Your task to perform on an android device: Open Wikipedia Image 0: 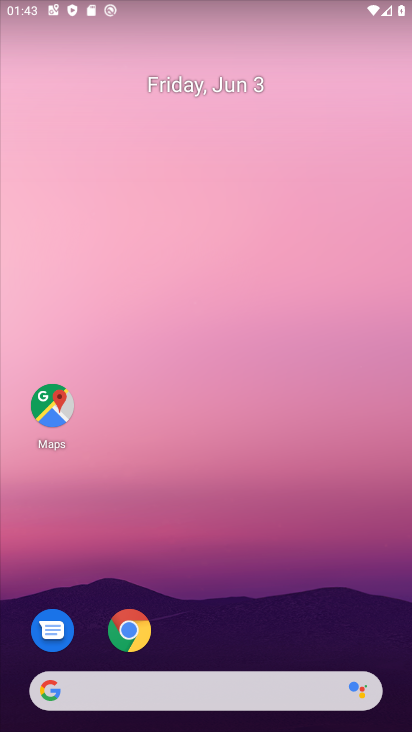
Step 0: click (144, 627)
Your task to perform on an android device: Open Wikipedia Image 1: 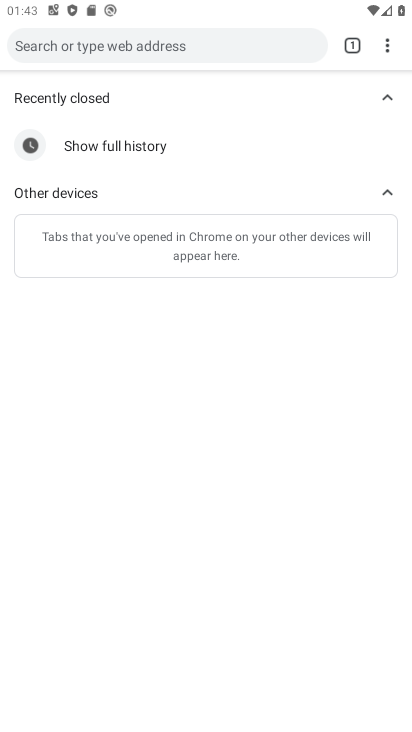
Step 1: click (352, 38)
Your task to perform on an android device: Open Wikipedia Image 2: 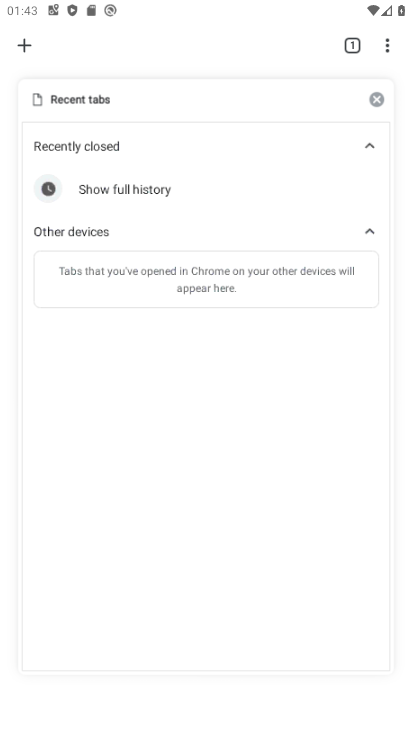
Step 2: click (26, 52)
Your task to perform on an android device: Open Wikipedia Image 3: 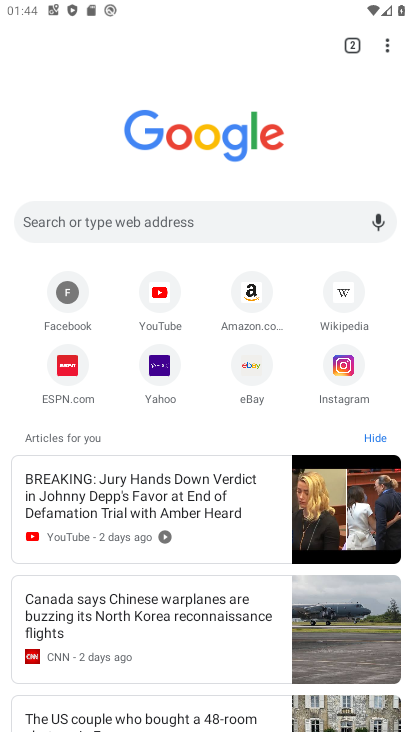
Step 3: click (347, 294)
Your task to perform on an android device: Open Wikipedia Image 4: 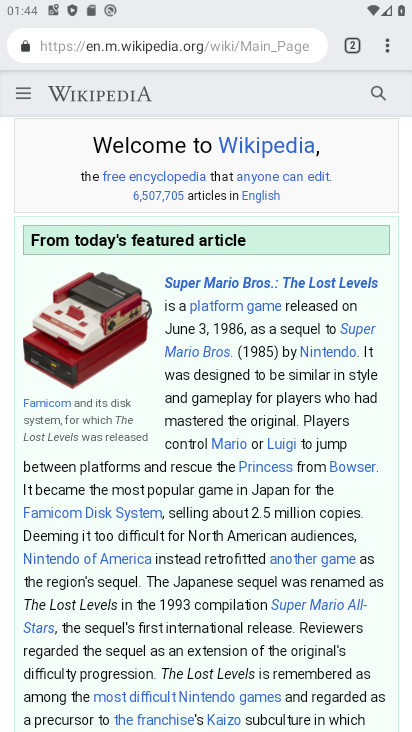
Step 4: task complete